Your task to perform on an android device: Open Google Chrome and click the shortcut for Amazon.com Image 0: 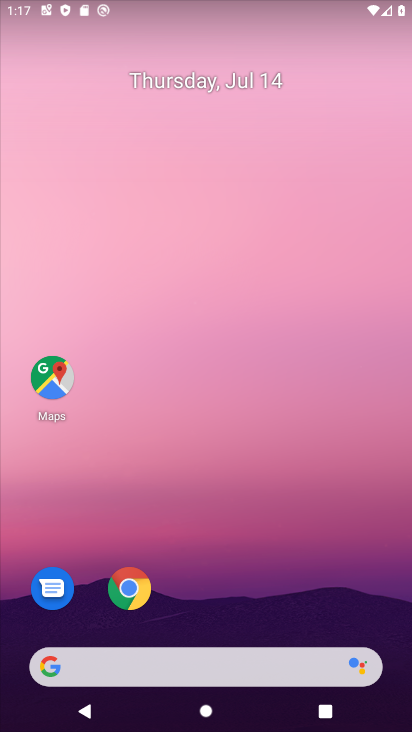
Step 0: click (125, 586)
Your task to perform on an android device: Open Google Chrome and click the shortcut for Amazon.com Image 1: 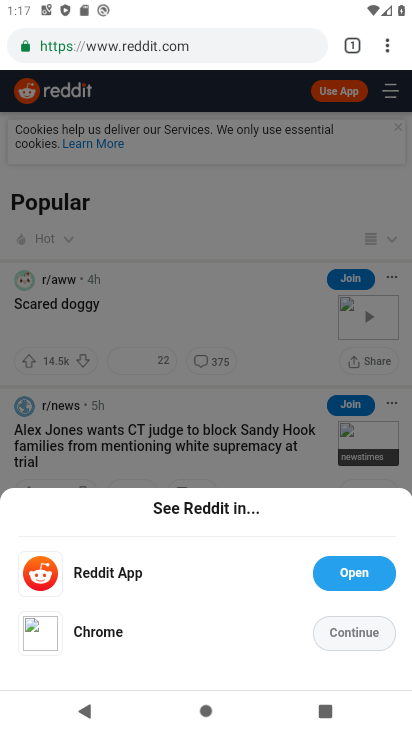
Step 1: click (341, 635)
Your task to perform on an android device: Open Google Chrome and click the shortcut for Amazon.com Image 2: 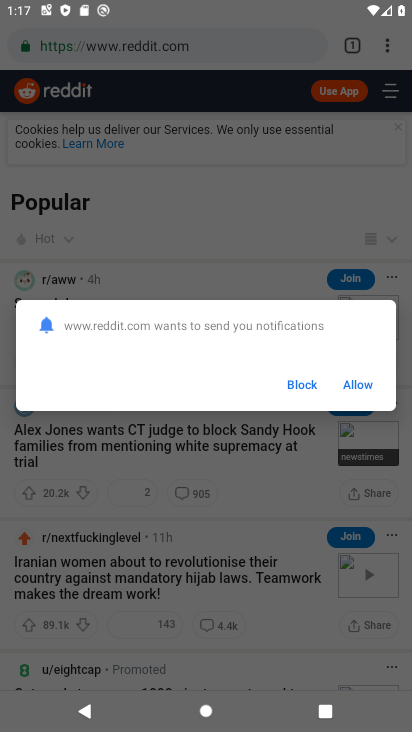
Step 2: click (283, 389)
Your task to perform on an android device: Open Google Chrome and click the shortcut for Amazon.com Image 3: 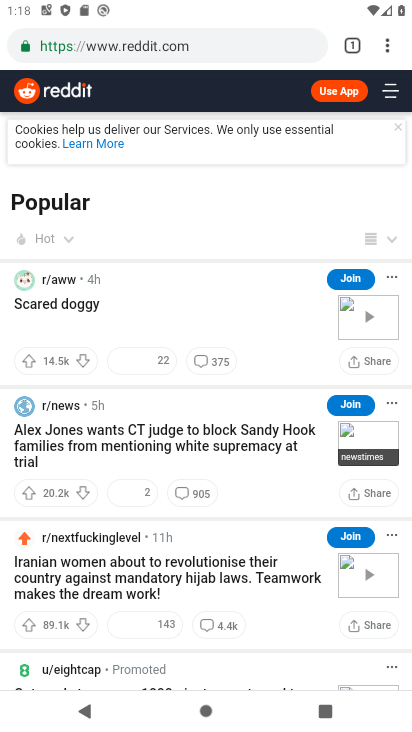
Step 3: click (351, 44)
Your task to perform on an android device: Open Google Chrome and click the shortcut for Amazon.com Image 4: 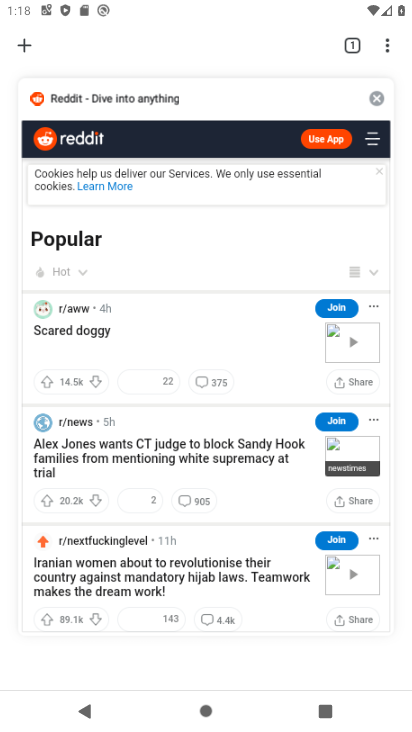
Step 4: click (22, 43)
Your task to perform on an android device: Open Google Chrome and click the shortcut for Amazon.com Image 5: 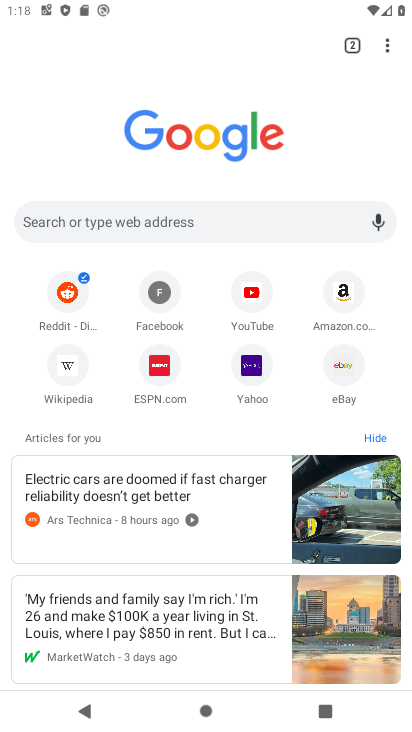
Step 5: click (340, 288)
Your task to perform on an android device: Open Google Chrome and click the shortcut for Amazon.com Image 6: 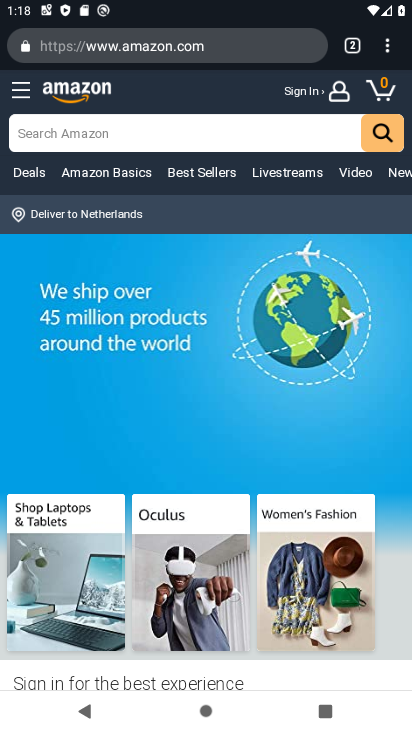
Step 6: task complete